Your task to perform on an android device: turn on airplane mode Image 0: 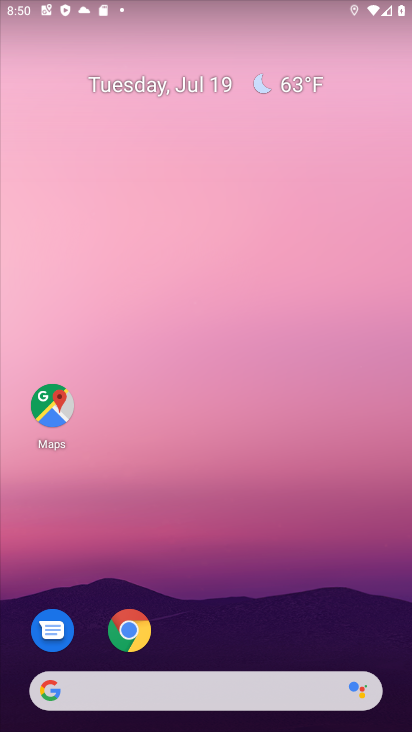
Step 0: press home button
Your task to perform on an android device: turn on airplane mode Image 1: 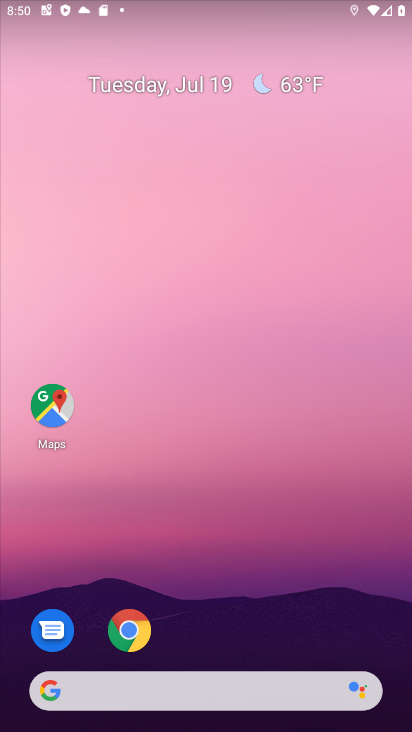
Step 1: drag from (179, 680) to (190, 135)
Your task to perform on an android device: turn on airplane mode Image 2: 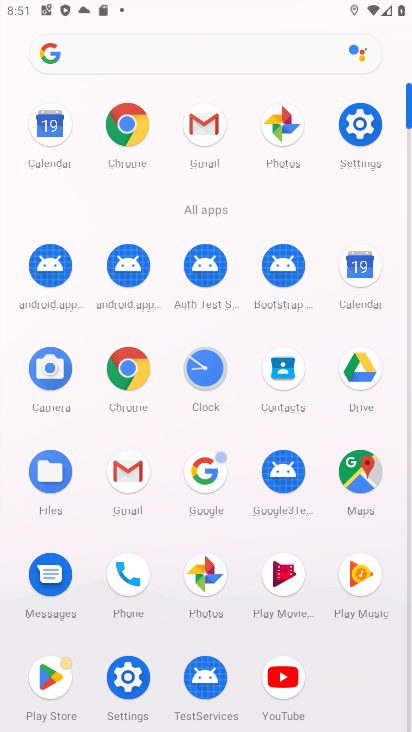
Step 2: click (359, 125)
Your task to perform on an android device: turn on airplane mode Image 3: 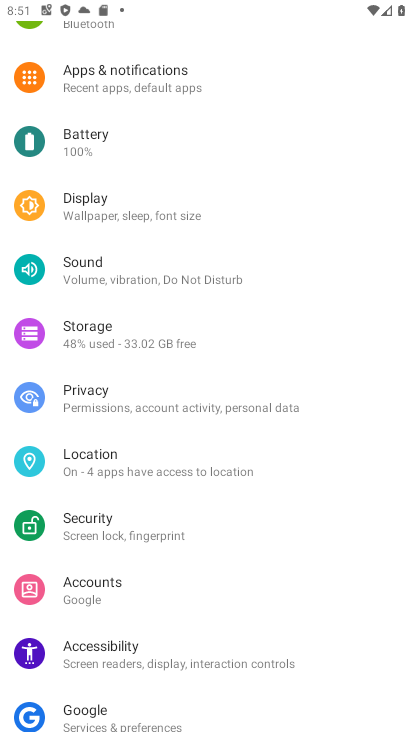
Step 3: drag from (153, 119) to (191, 258)
Your task to perform on an android device: turn on airplane mode Image 4: 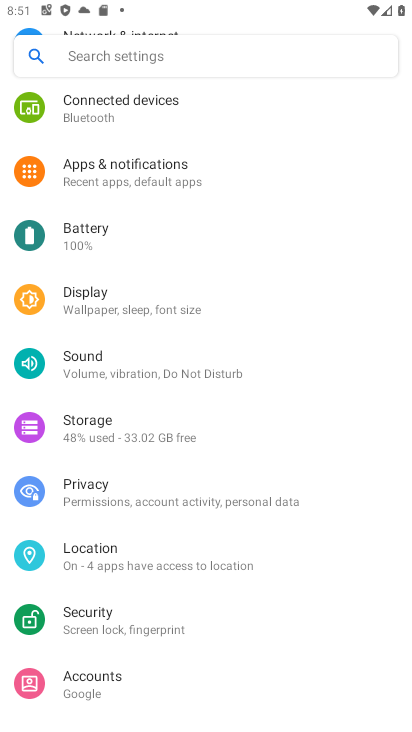
Step 4: drag from (156, 108) to (216, 271)
Your task to perform on an android device: turn on airplane mode Image 5: 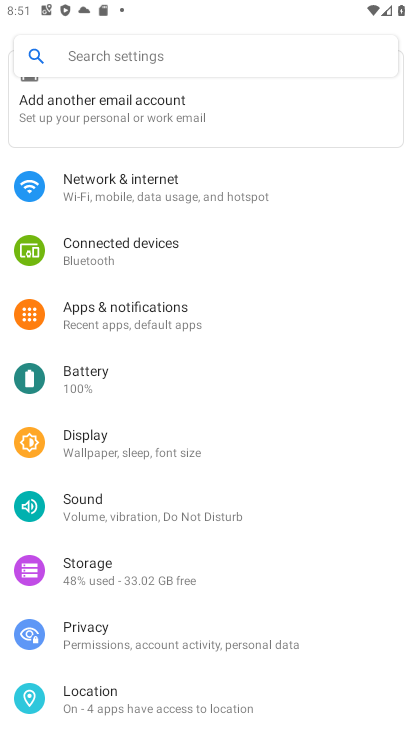
Step 5: click (128, 181)
Your task to perform on an android device: turn on airplane mode Image 6: 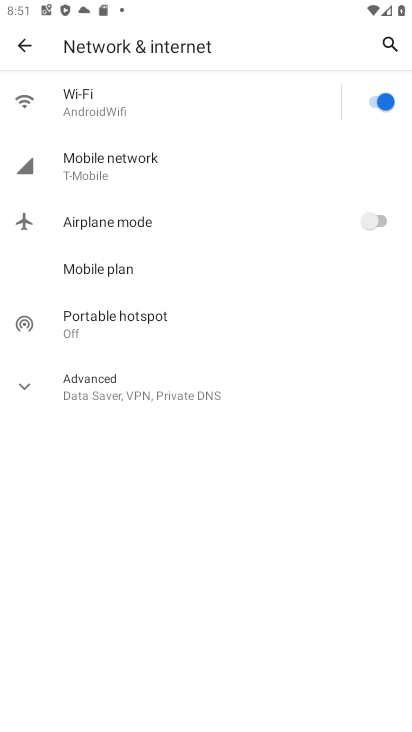
Step 6: click (370, 224)
Your task to perform on an android device: turn on airplane mode Image 7: 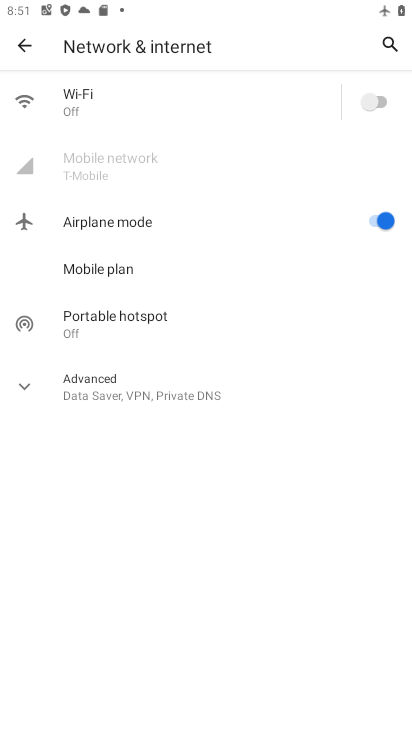
Step 7: task complete